Your task to perform on an android device: delete browsing data in the chrome app Image 0: 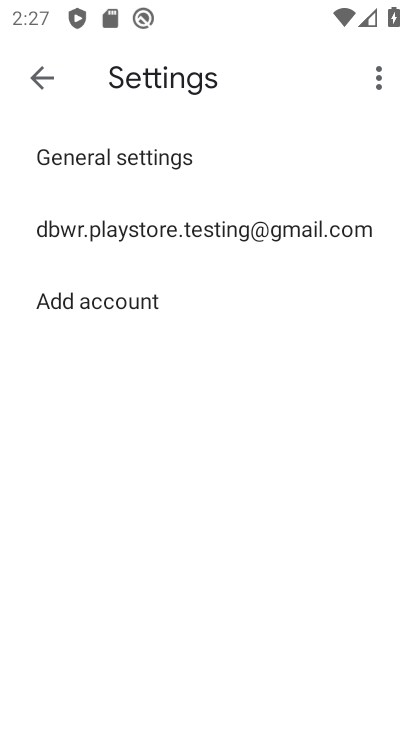
Step 0: press home button
Your task to perform on an android device: delete browsing data in the chrome app Image 1: 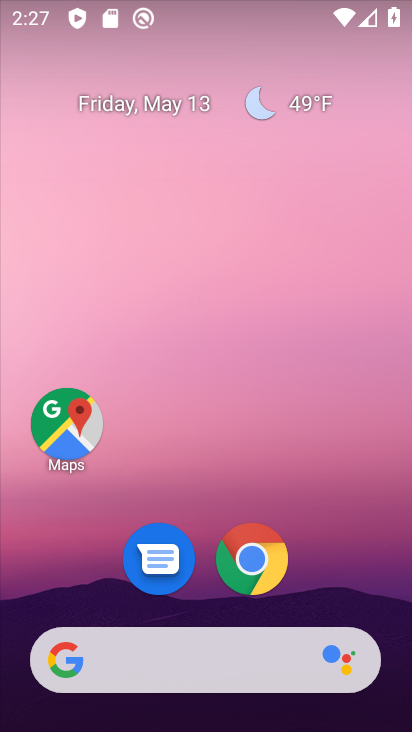
Step 1: click (253, 579)
Your task to perform on an android device: delete browsing data in the chrome app Image 2: 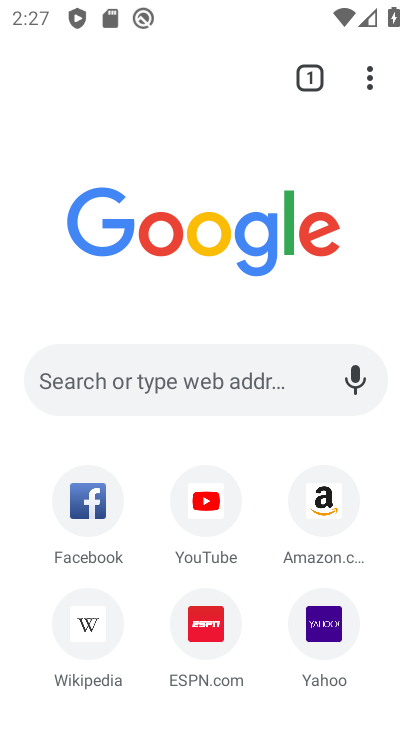
Step 2: click (374, 87)
Your task to perform on an android device: delete browsing data in the chrome app Image 3: 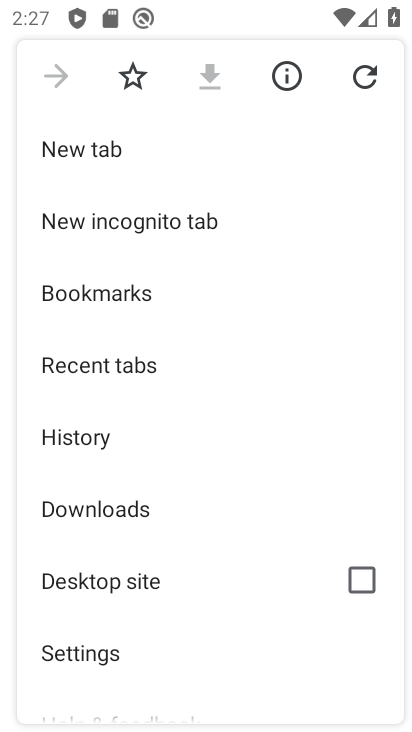
Step 3: click (84, 429)
Your task to perform on an android device: delete browsing data in the chrome app Image 4: 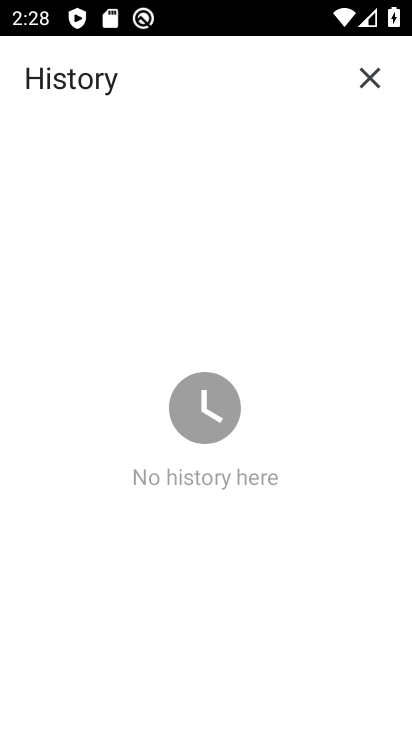
Step 4: task complete